Your task to perform on an android device: delete location history Image 0: 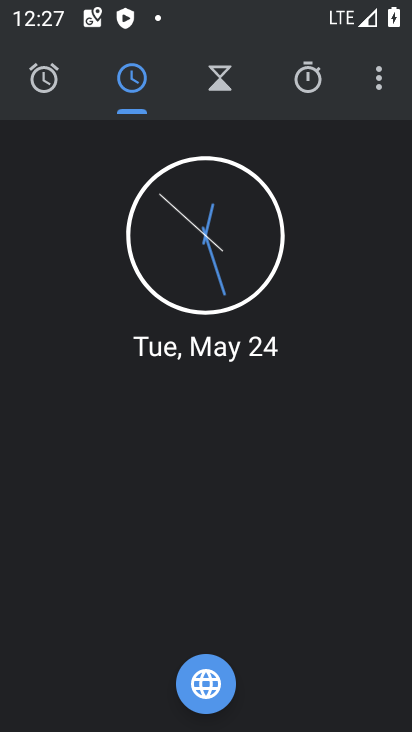
Step 0: press home button
Your task to perform on an android device: delete location history Image 1: 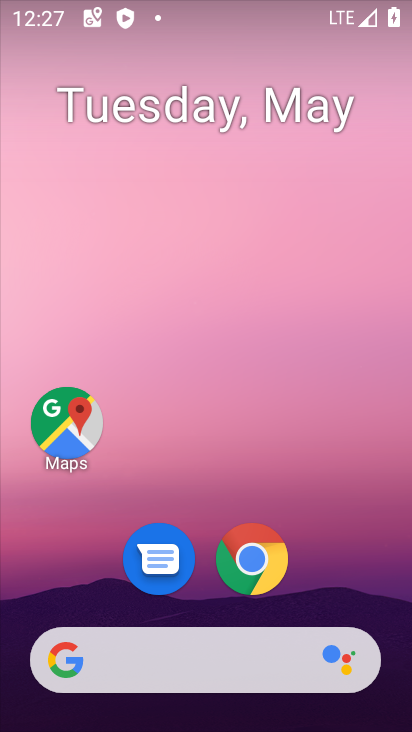
Step 1: drag from (392, 580) to (366, 134)
Your task to perform on an android device: delete location history Image 2: 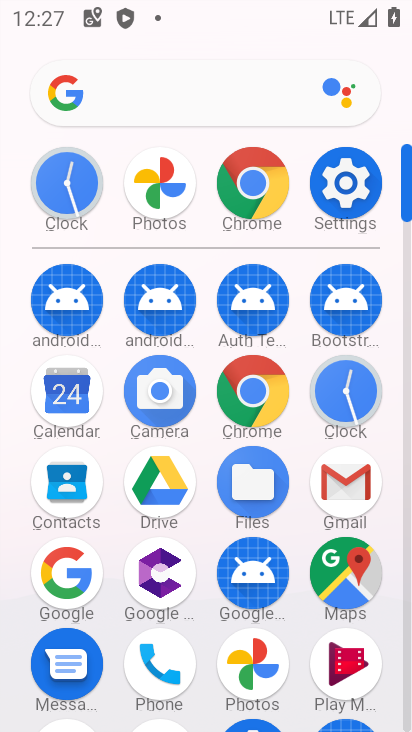
Step 2: click (353, 211)
Your task to perform on an android device: delete location history Image 3: 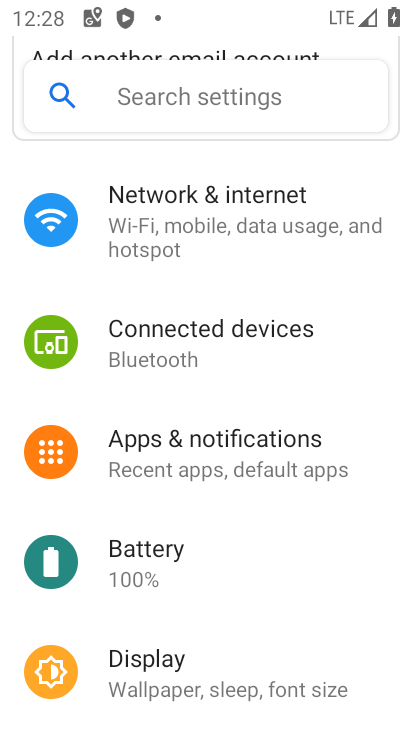
Step 3: drag from (272, 698) to (280, 192)
Your task to perform on an android device: delete location history Image 4: 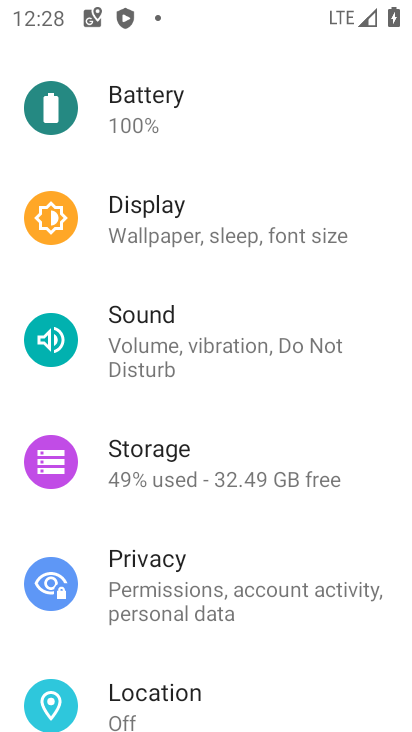
Step 4: drag from (260, 570) to (267, 248)
Your task to perform on an android device: delete location history Image 5: 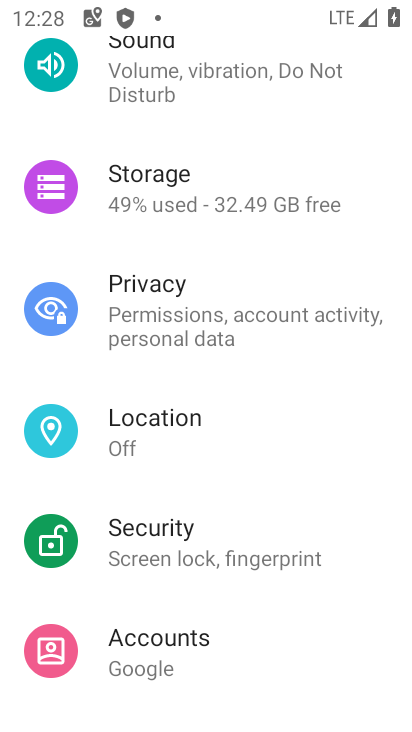
Step 5: click (199, 398)
Your task to perform on an android device: delete location history Image 6: 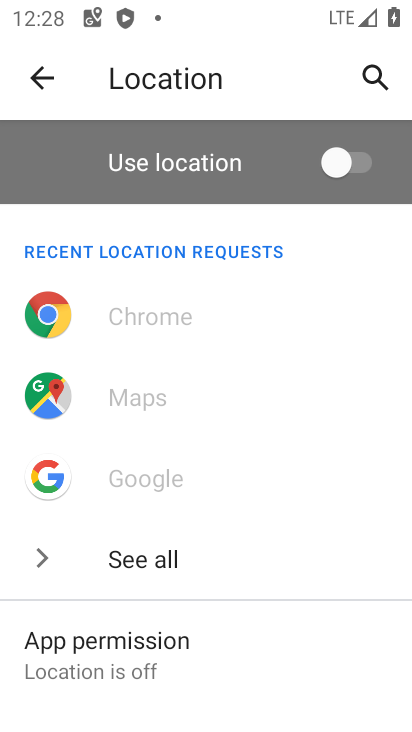
Step 6: drag from (269, 487) to (279, 79)
Your task to perform on an android device: delete location history Image 7: 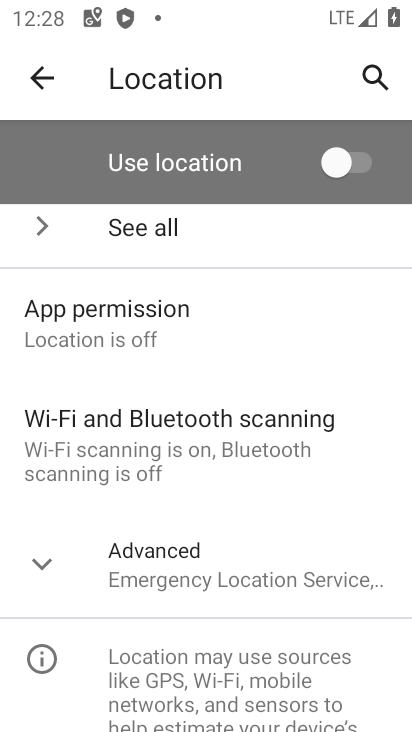
Step 7: click (231, 585)
Your task to perform on an android device: delete location history Image 8: 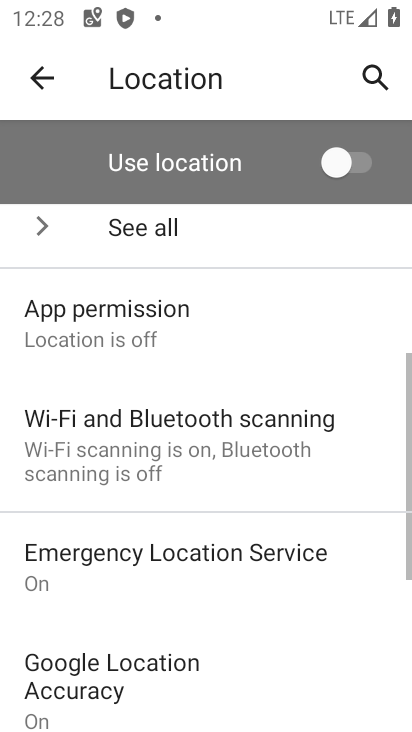
Step 8: drag from (231, 585) to (241, 358)
Your task to perform on an android device: delete location history Image 9: 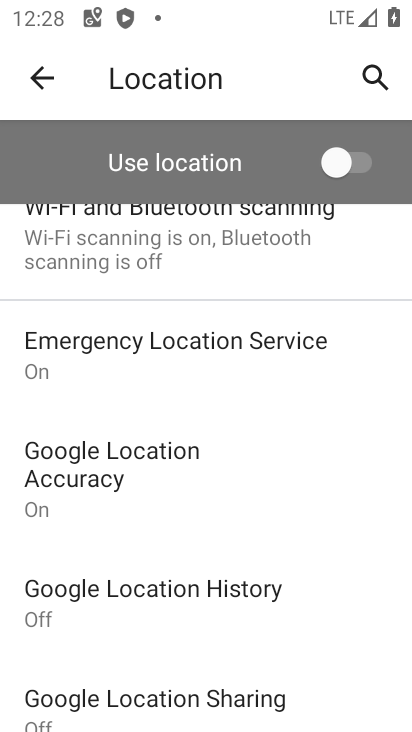
Step 9: click (220, 622)
Your task to perform on an android device: delete location history Image 10: 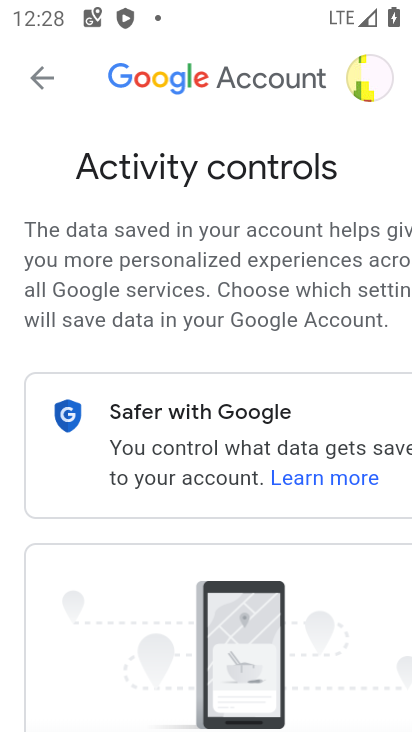
Step 10: drag from (257, 538) to (257, 85)
Your task to perform on an android device: delete location history Image 11: 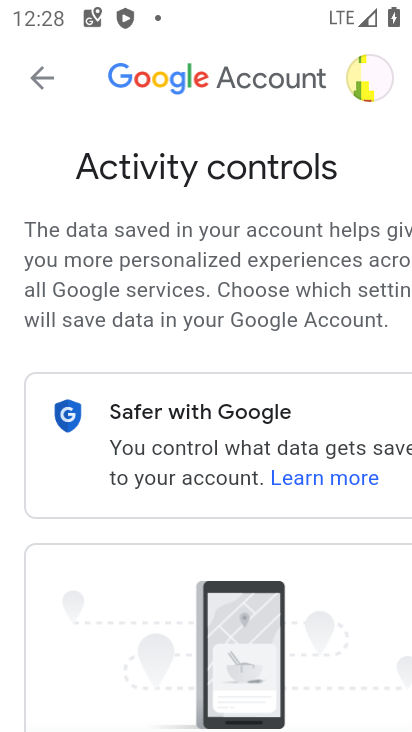
Step 11: drag from (206, 627) to (233, 101)
Your task to perform on an android device: delete location history Image 12: 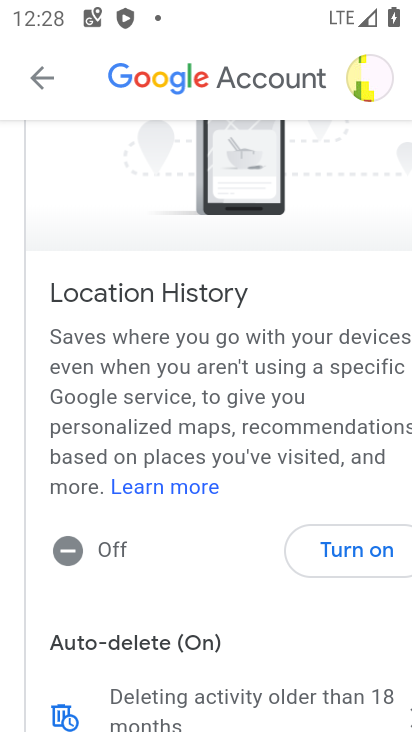
Step 12: click (344, 559)
Your task to perform on an android device: delete location history Image 13: 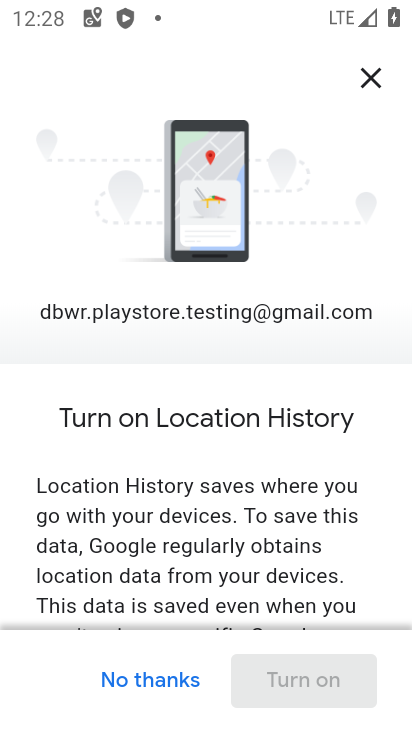
Step 13: task complete